Your task to perform on an android device: Open the map Image 0: 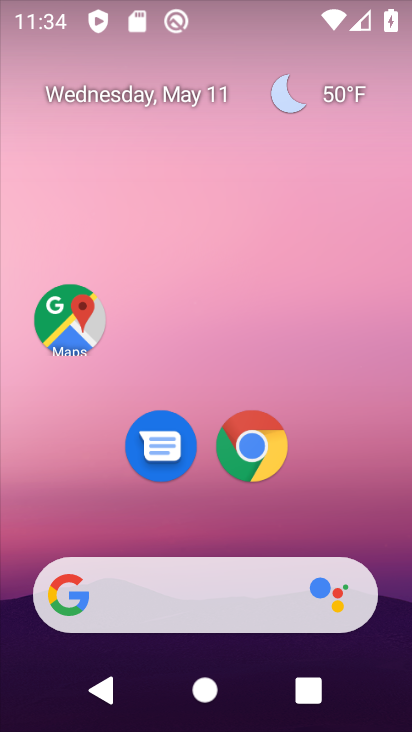
Step 0: click (55, 319)
Your task to perform on an android device: Open the map Image 1: 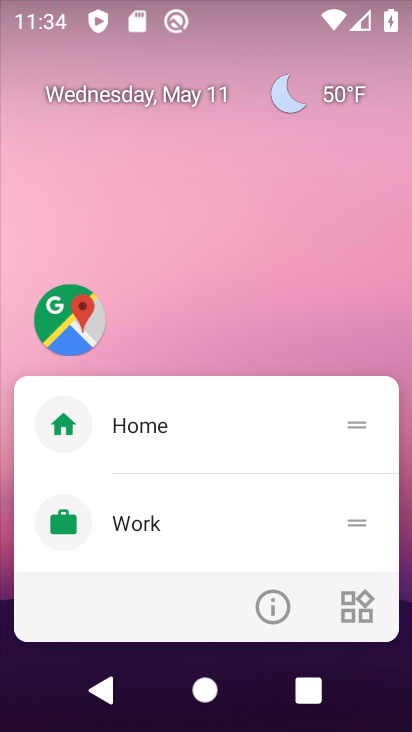
Step 1: click (55, 319)
Your task to perform on an android device: Open the map Image 2: 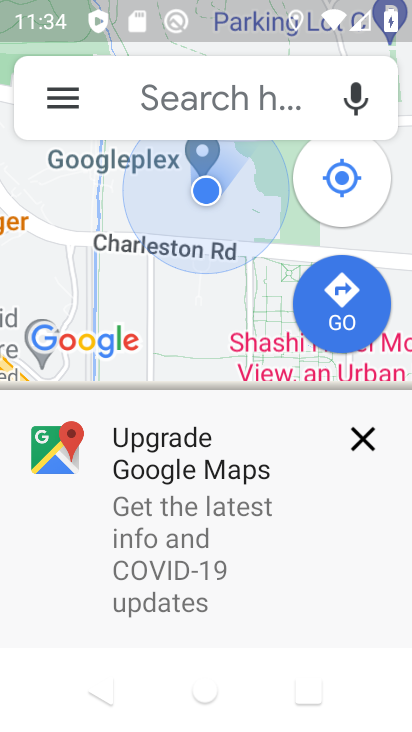
Step 2: task complete